Your task to perform on an android device: Open display settings Image 0: 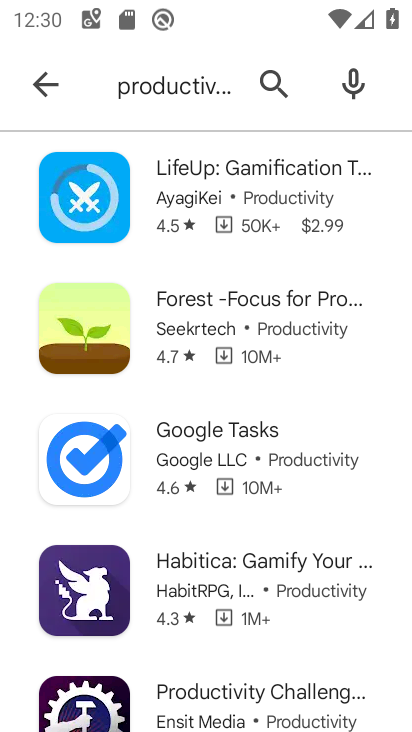
Step 0: press home button
Your task to perform on an android device: Open display settings Image 1: 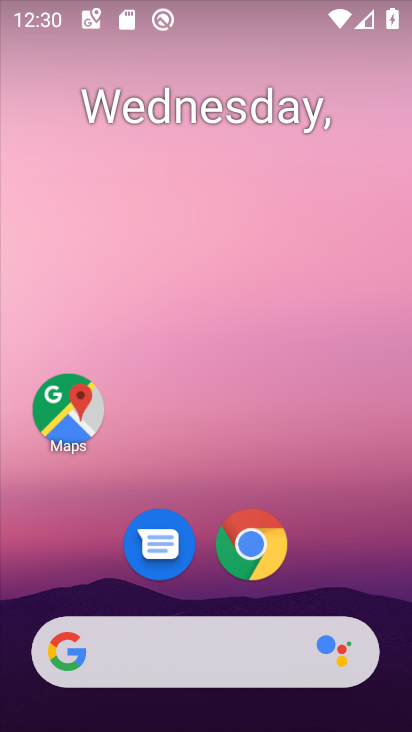
Step 1: drag from (264, 399) to (311, 156)
Your task to perform on an android device: Open display settings Image 2: 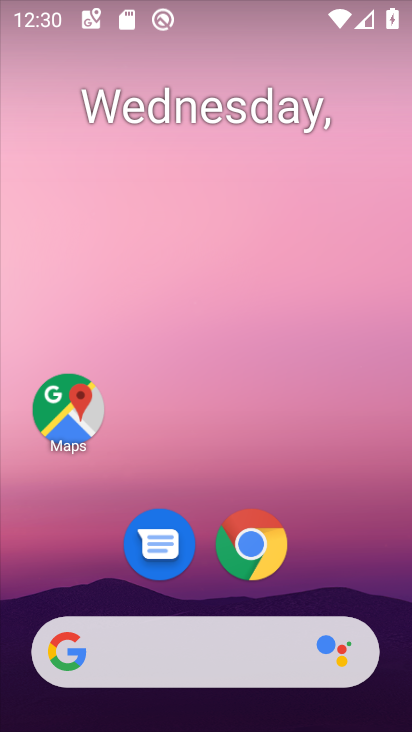
Step 2: drag from (200, 444) to (254, 58)
Your task to perform on an android device: Open display settings Image 3: 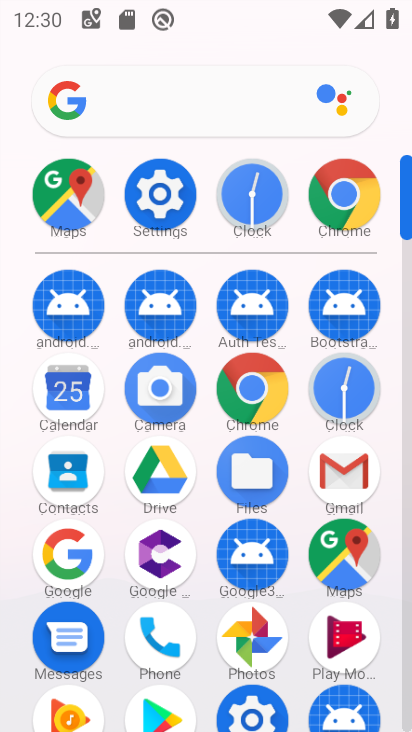
Step 3: drag from (303, 440) to (304, 302)
Your task to perform on an android device: Open display settings Image 4: 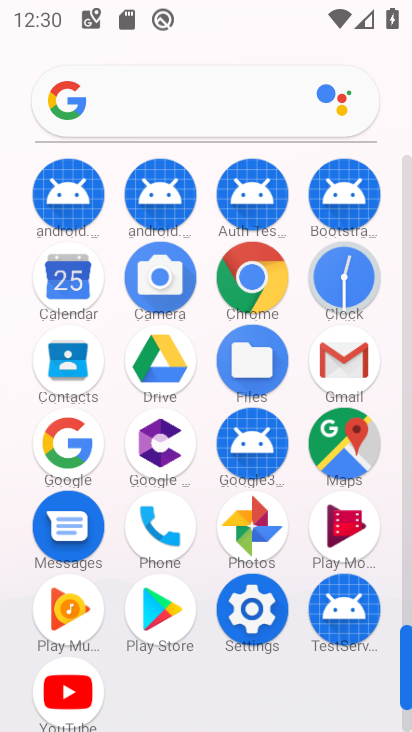
Step 4: click (254, 619)
Your task to perform on an android device: Open display settings Image 5: 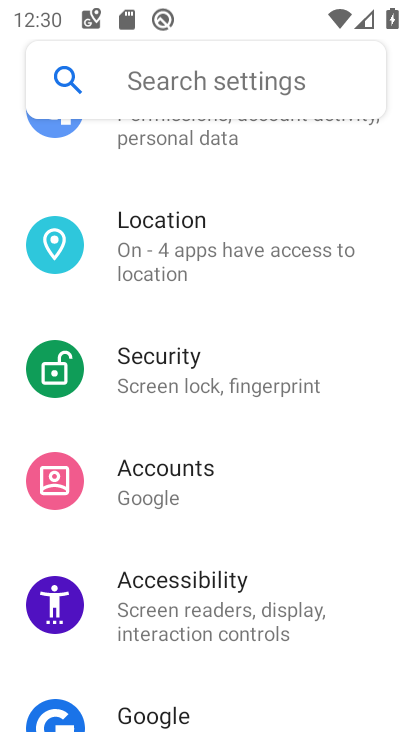
Step 5: drag from (253, 315) to (284, 582)
Your task to perform on an android device: Open display settings Image 6: 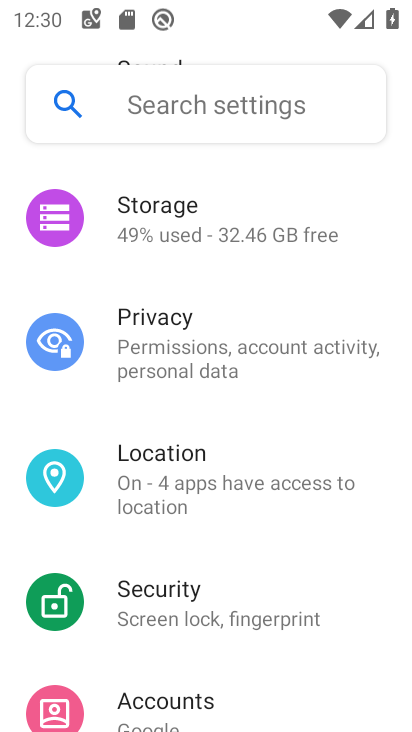
Step 6: drag from (204, 288) to (268, 510)
Your task to perform on an android device: Open display settings Image 7: 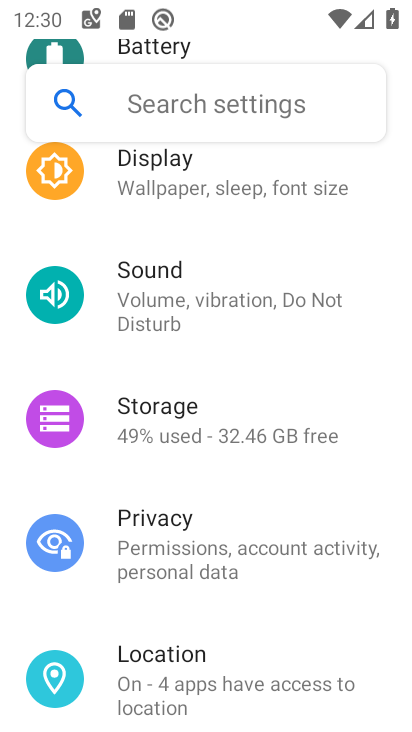
Step 7: click (213, 190)
Your task to perform on an android device: Open display settings Image 8: 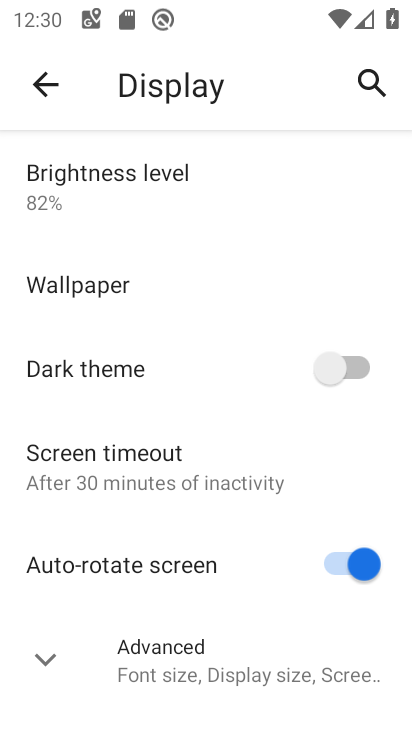
Step 8: click (213, 190)
Your task to perform on an android device: Open display settings Image 9: 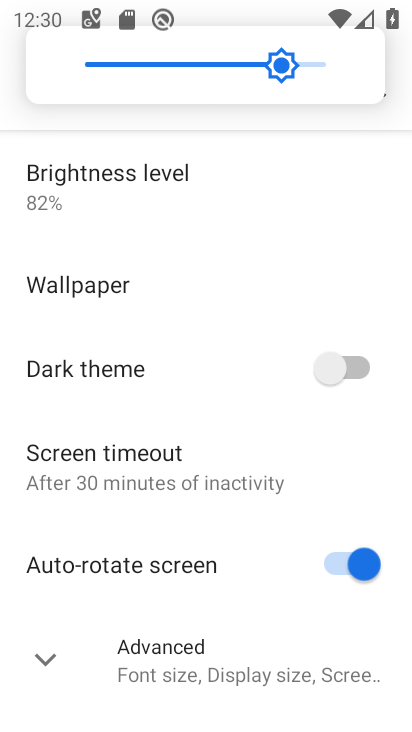
Step 9: task complete